Your task to perform on an android device: toggle translation in the chrome app Image 0: 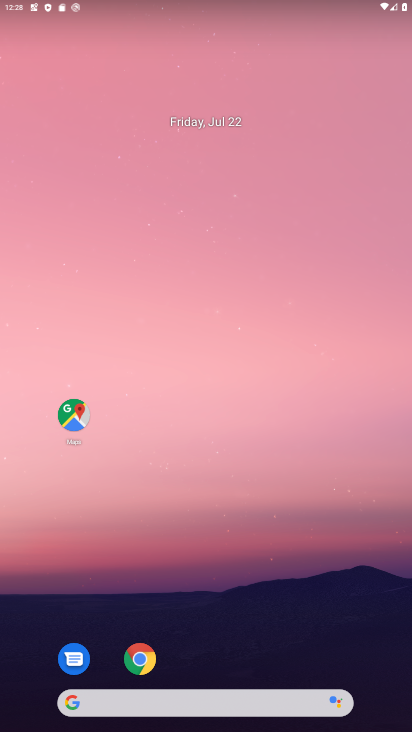
Step 0: click (133, 673)
Your task to perform on an android device: toggle translation in the chrome app Image 1: 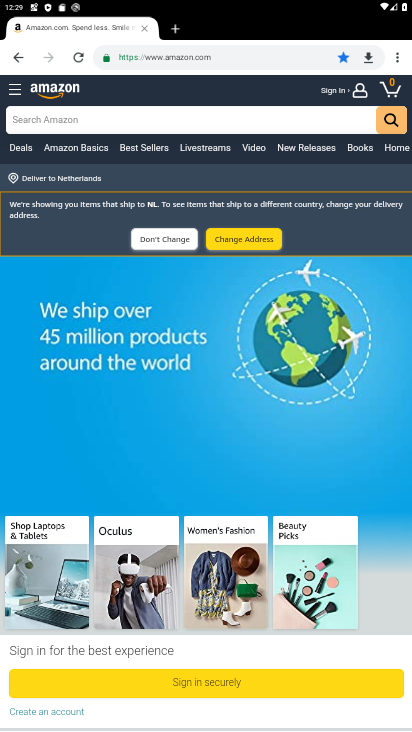
Step 1: click (394, 64)
Your task to perform on an android device: toggle translation in the chrome app Image 2: 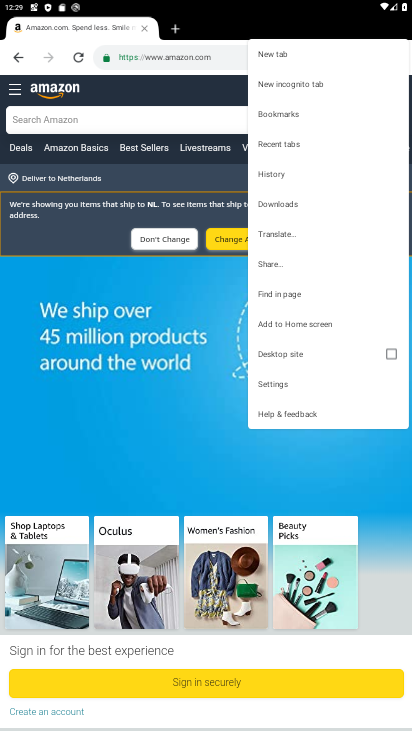
Step 2: click (269, 388)
Your task to perform on an android device: toggle translation in the chrome app Image 3: 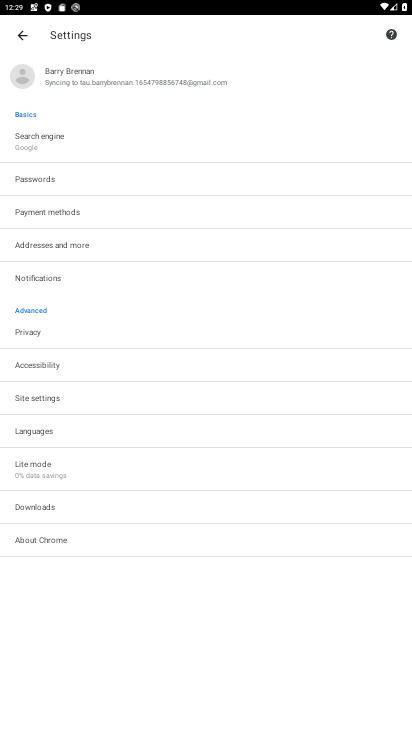
Step 3: click (53, 430)
Your task to perform on an android device: toggle translation in the chrome app Image 4: 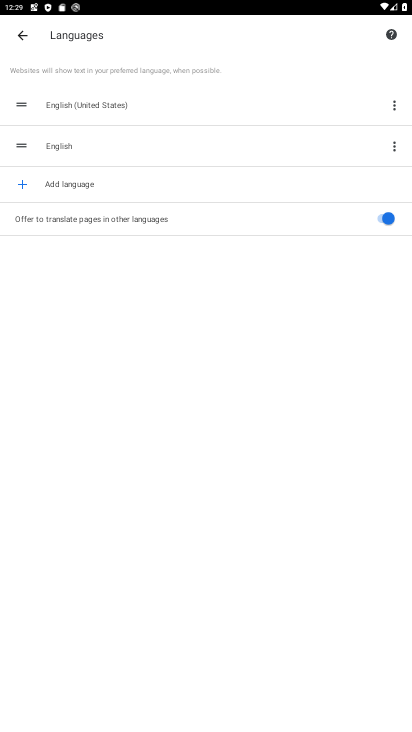
Step 4: click (381, 218)
Your task to perform on an android device: toggle translation in the chrome app Image 5: 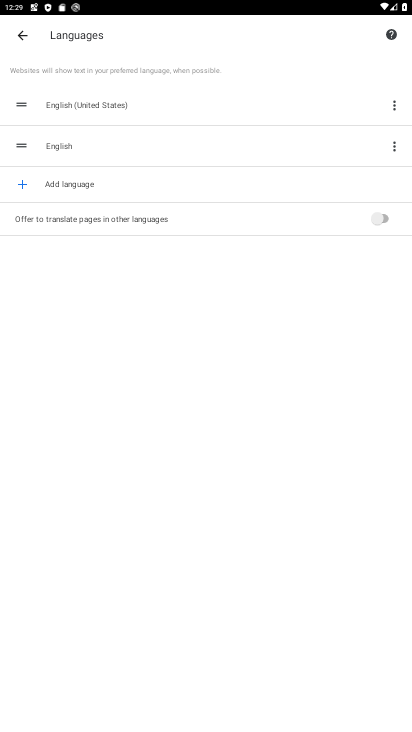
Step 5: task complete